Your task to perform on an android device: toggle notifications settings in the gmail app Image 0: 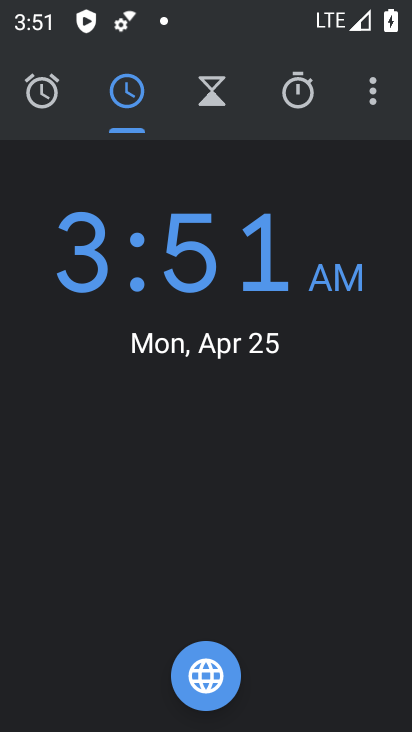
Step 0: press home button
Your task to perform on an android device: toggle notifications settings in the gmail app Image 1: 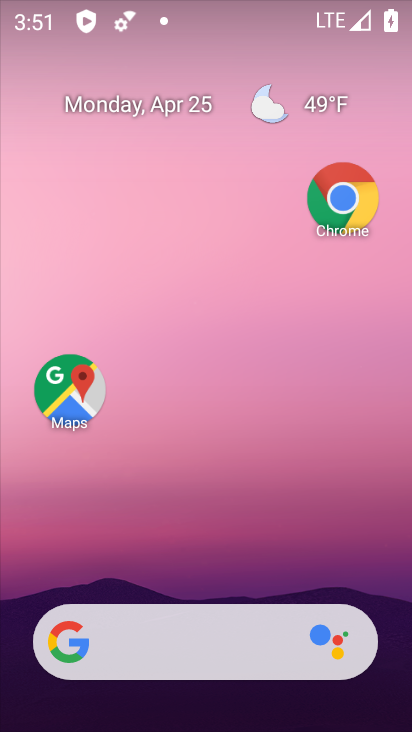
Step 1: drag from (188, 642) to (325, 124)
Your task to perform on an android device: toggle notifications settings in the gmail app Image 2: 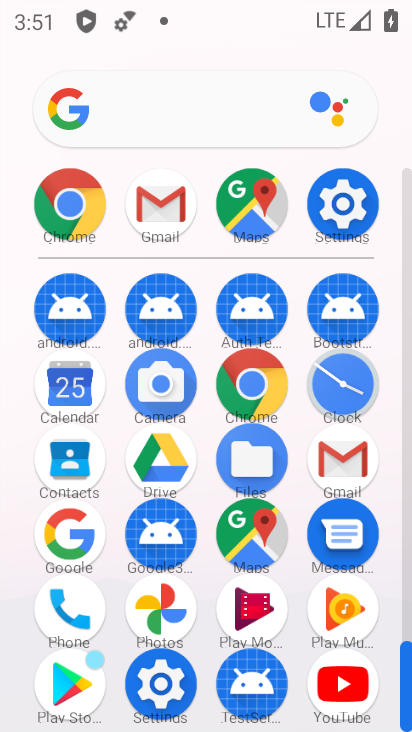
Step 2: click (172, 212)
Your task to perform on an android device: toggle notifications settings in the gmail app Image 3: 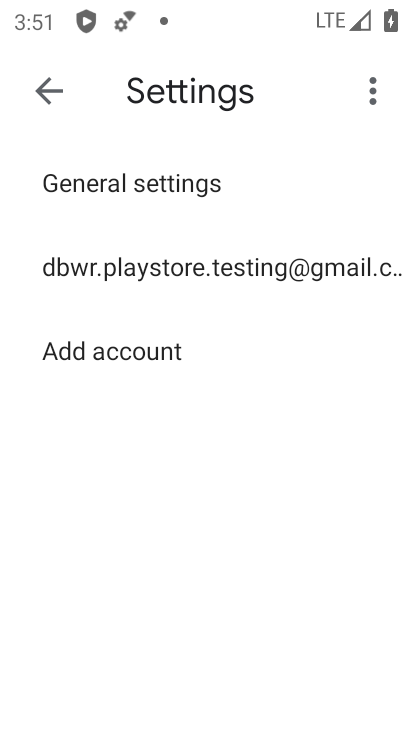
Step 3: click (241, 258)
Your task to perform on an android device: toggle notifications settings in the gmail app Image 4: 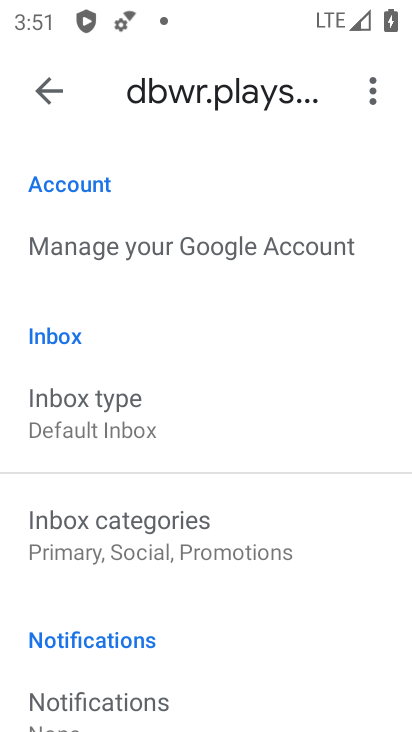
Step 4: drag from (161, 600) to (376, 77)
Your task to perform on an android device: toggle notifications settings in the gmail app Image 5: 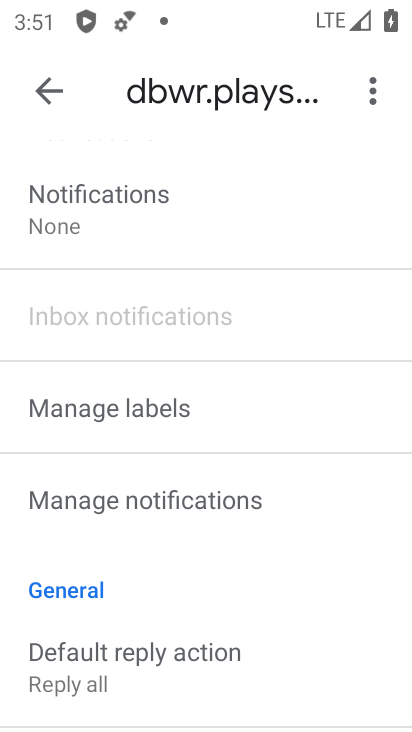
Step 5: click (89, 219)
Your task to perform on an android device: toggle notifications settings in the gmail app Image 6: 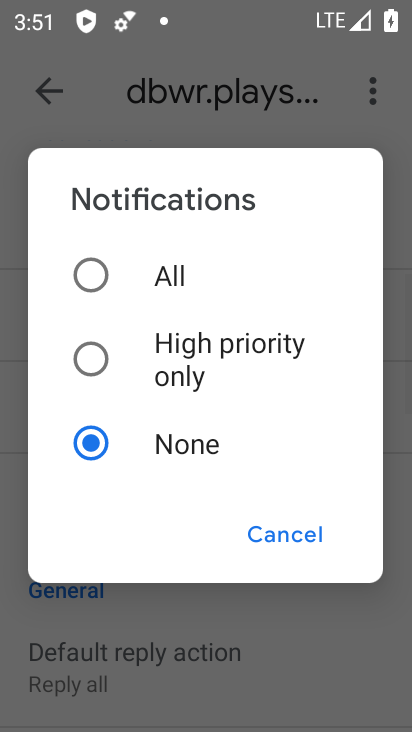
Step 6: click (77, 274)
Your task to perform on an android device: toggle notifications settings in the gmail app Image 7: 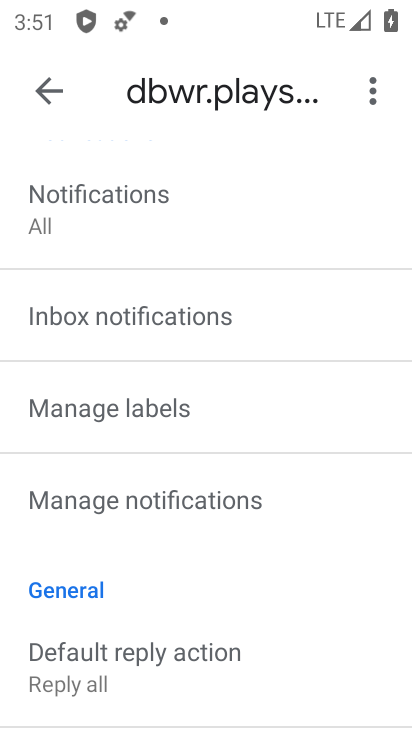
Step 7: task complete